Your task to perform on an android device: Go to Wikipedia Image 0: 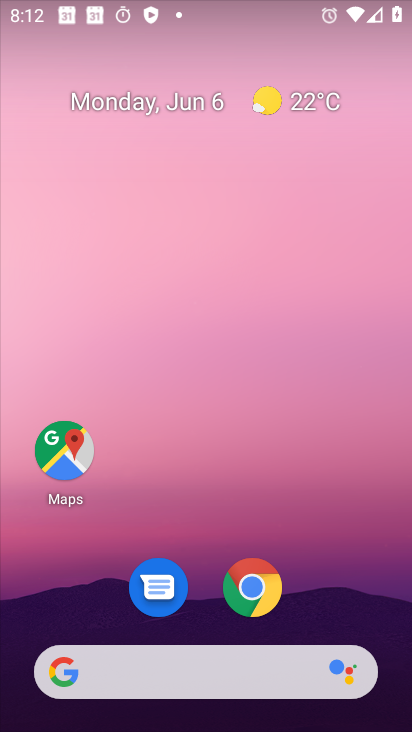
Step 0: drag from (270, 431) to (270, 320)
Your task to perform on an android device: Go to Wikipedia Image 1: 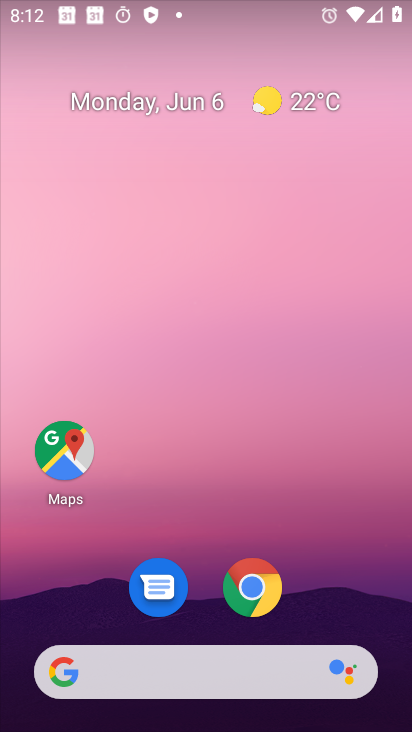
Step 1: click (260, 600)
Your task to perform on an android device: Go to Wikipedia Image 2: 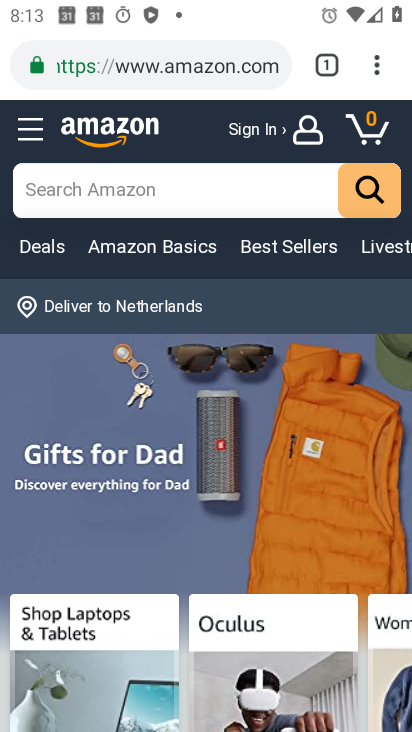
Step 2: click (329, 70)
Your task to perform on an android device: Go to Wikipedia Image 3: 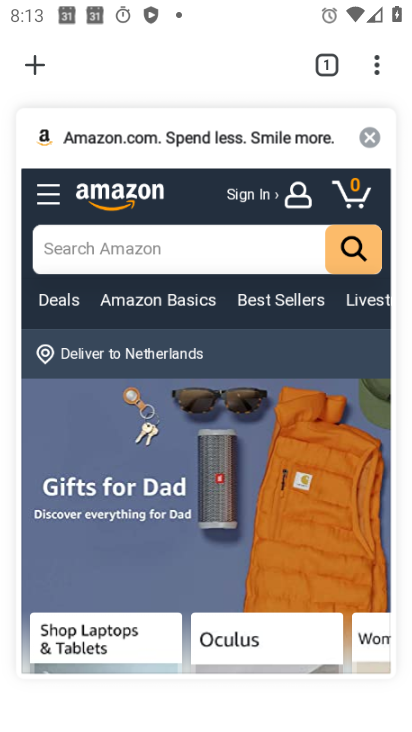
Step 3: click (375, 142)
Your task to perform on an android device: Go to Wikipedia Image 4: 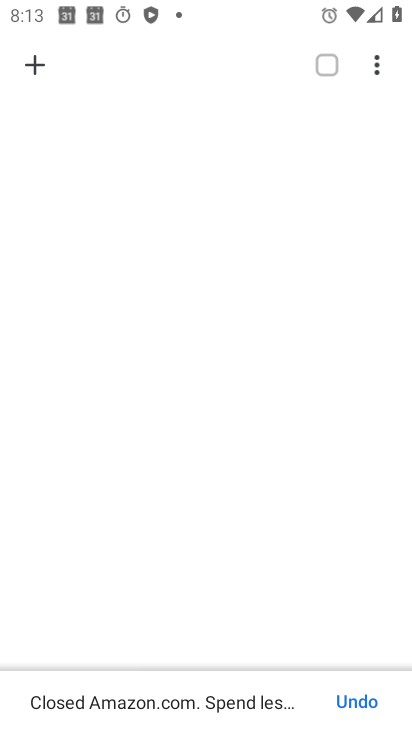
Step 4: click (43, 75)
Your task to perform on an android device: Go to Wikipedia Image 5: 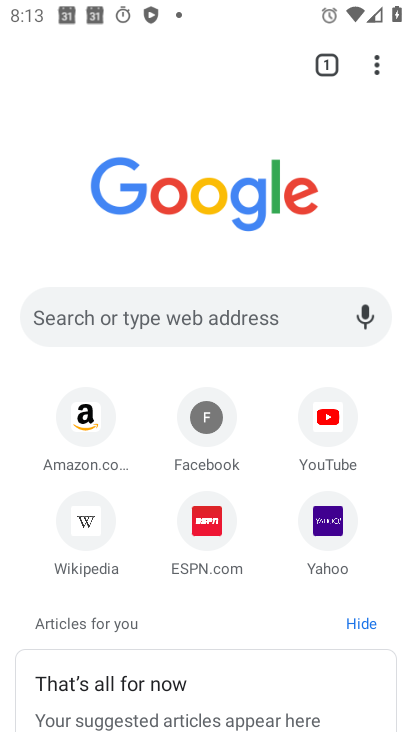
Step 5: click (76, 518)
Your task to perform on an android device: Go to Wikipedia Image 6: 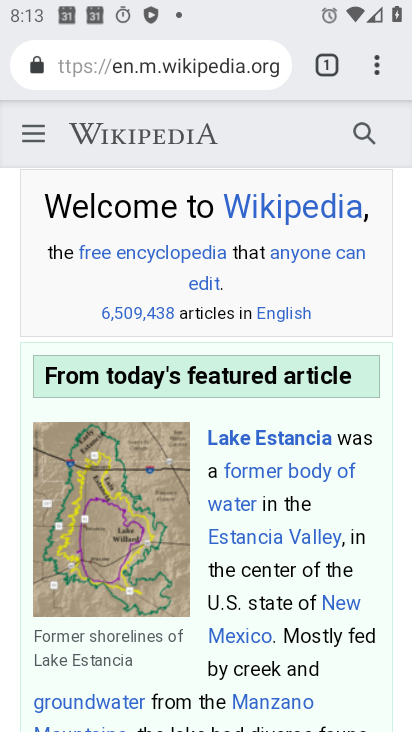
Step 6: task complete